Your task to perform on an android device: turn on wifi Image 0: 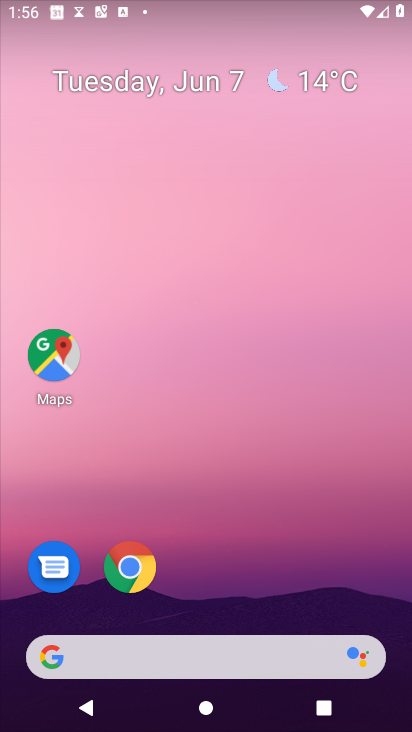
Step 0: drag from (328, 636) to (345, 143)
Your task to perform on an android device: turn on wifi Image 1: 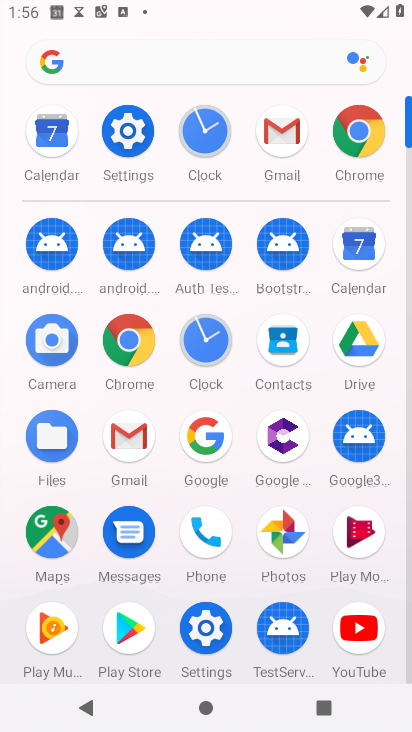
Step 1: click (128, 133)
Your task to perform on an android device: turn on wifi Image 2: 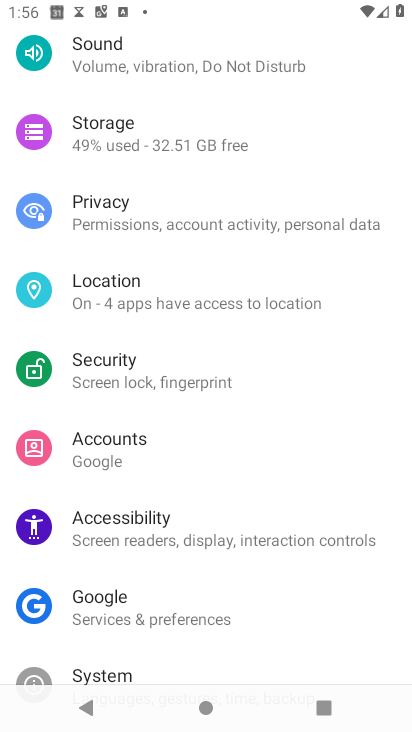
Step 2: drag from (314, 200) to (330, 666)
Your task to perform on an android device: turn on wifi Image 3: 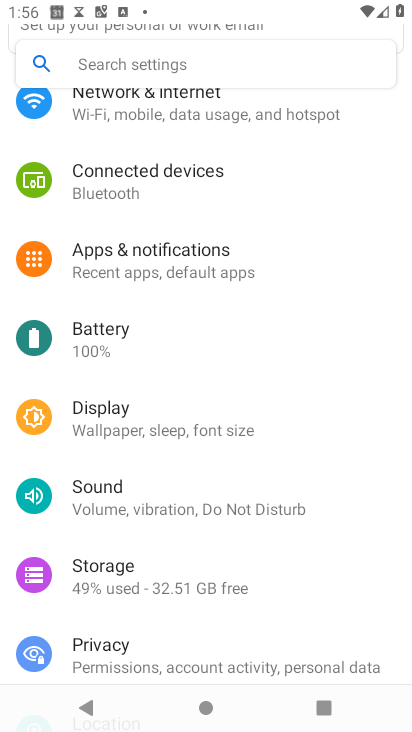
Step 3: drag from (284, 184) to (288, 507)
Your task to perform on an android device: turn on wifi Image 4: 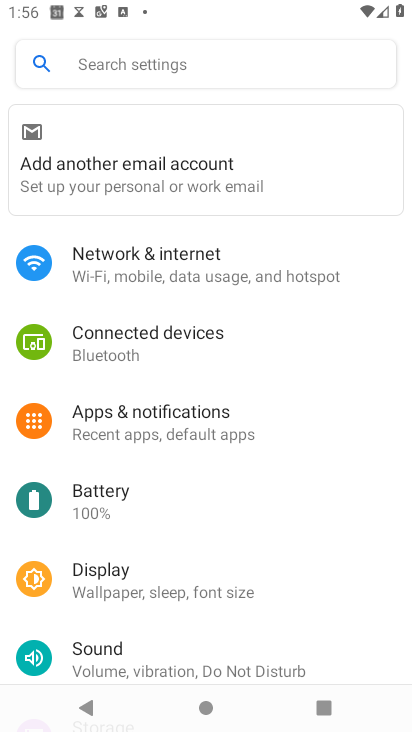
Step 4: click (272, 265)
Your task to perform on an android device: turn on wifi Image 5: 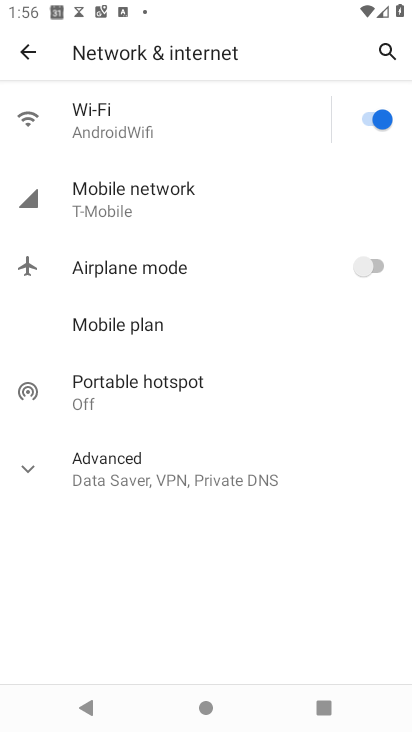
Step 5: task complete